Your task to perform on an android device: turn pop-ups off in chrome Image 0: 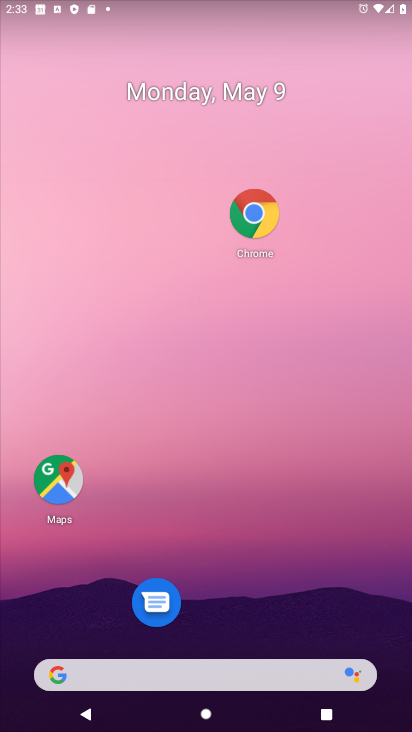
Step 0: click (248, 220)
Your task to perform on an android device: turn pop-ups off in chrome Image 1: 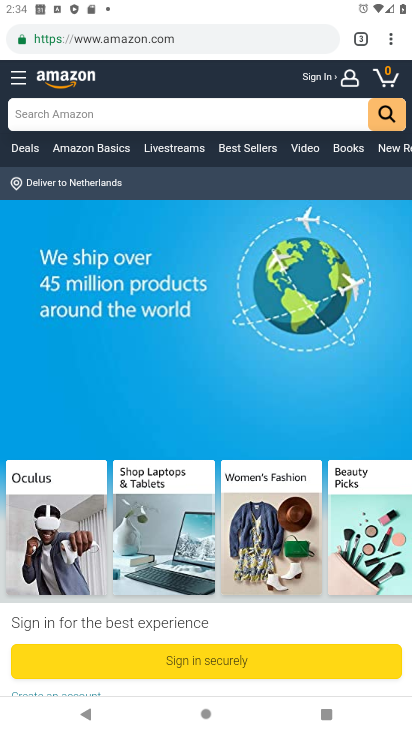
Step 1: click (389, 40)
Your task to perform on an android device: turn pop-ups off in chrome Image 2: 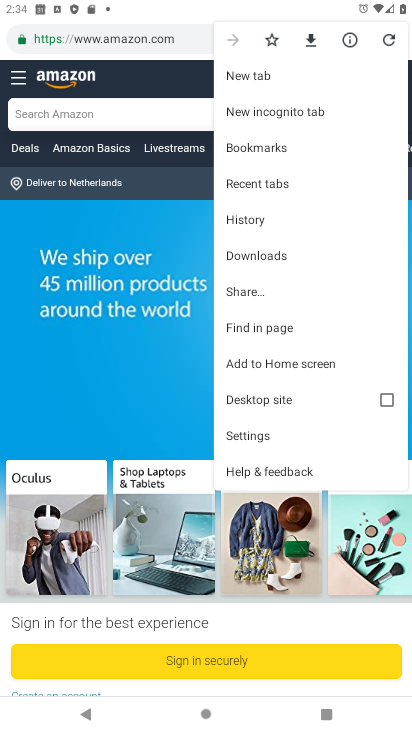
Step 2: click (267, 430)
Your task to perform on an android device: turn pop-ups off in chrome Image 3: 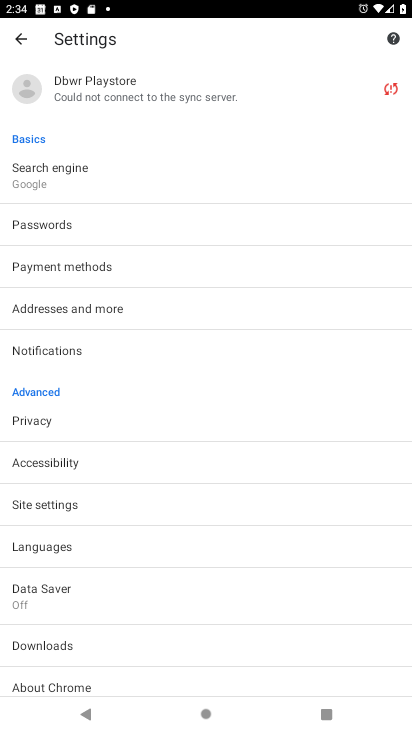
Step 3: click (171, 616)
Your task to perform on an android device: turn pop-ups off in chrome Image 4: 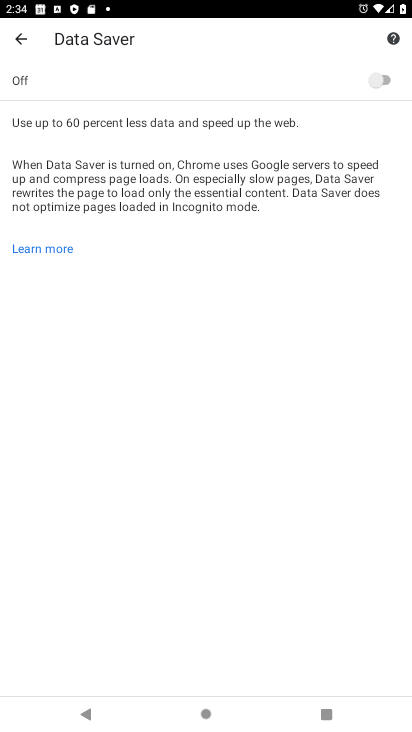
Step 4: click (369, 74)
Your task to perform on an android device: turn pop-ups off in chrome Image 5: 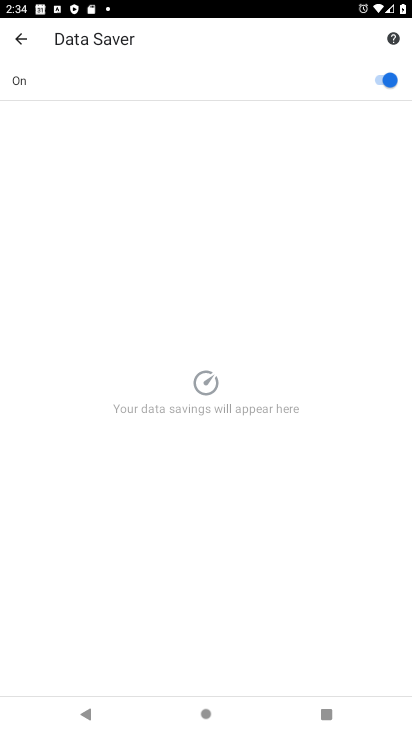
Step 5: task complete